Your task to perform on an android device: Clear the shopping cart on walmart.com. Add "energizer triple a" to the cart on walmart.com Image 0: 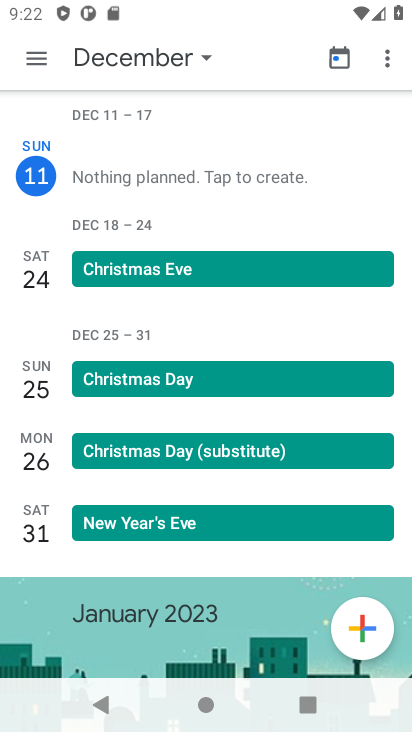
Step 0: press home button
Your task to perform on an android device: Clear the shopping cart on walmart.com. Add "energizer triple a" to the cart on walmart.com Image 1: 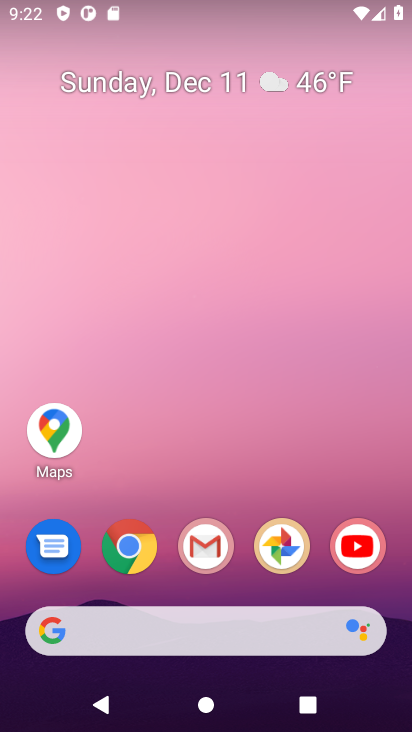
Step 1: click (116, 550)
Your task to perform on an android device: Clear the shopping cart on walmart.com. Add "energizer triple a" to the cart on walmart.com Image 2: 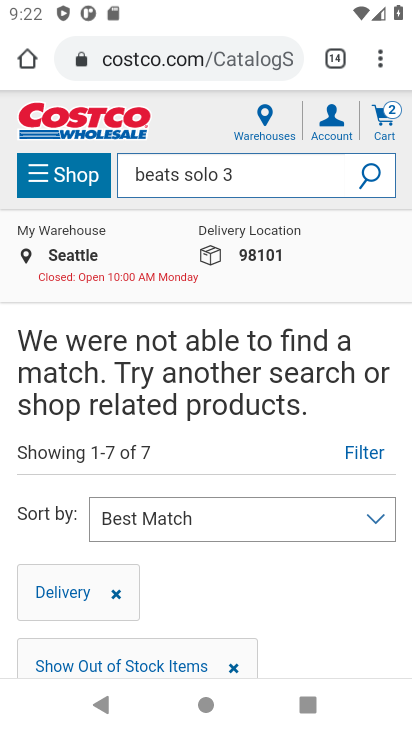
Step 2: click (161, 60)
Your task to perform on an android device: Clear the shopping cart on walmart.com. Add "energizer triple a" to the cart on walmart.com Image 3: 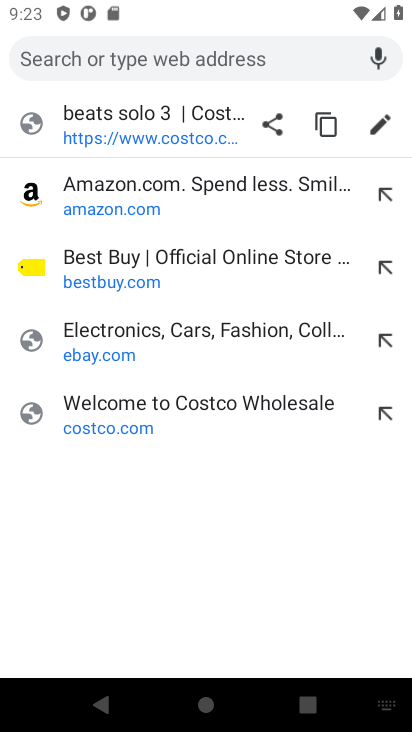
Step 3: click (111, 48)
Your task to perform on an android device: Clear the shopping cart on walmart.com. Add "energizer triple a" to the cart on walmart.com Image 4: 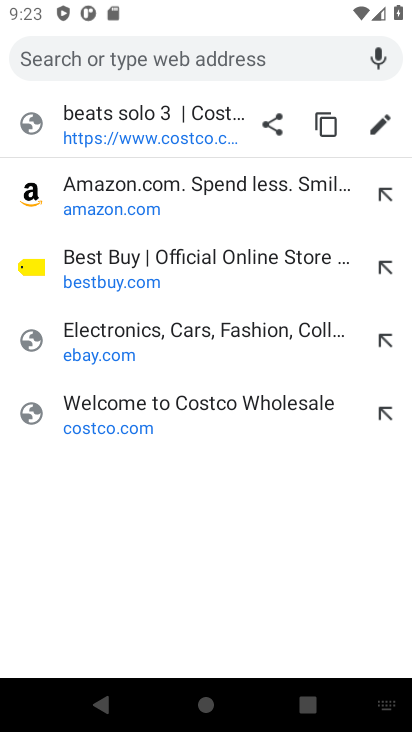
Step 4: type "walmart.com"
Your task to perform on an android device: Clear the shopping cart on walmart.com. Add "energizer triple a" to the cart on walmart.com Image 5: 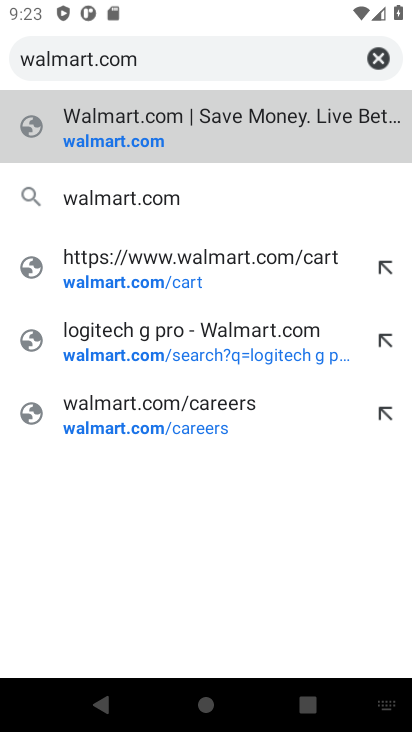
Step 5: click (111, 147)
Your task to perform on an android device: Clear the shopping cart on walmart.com. Add "energizer triple a" to the cart on walmart.com Image 6: 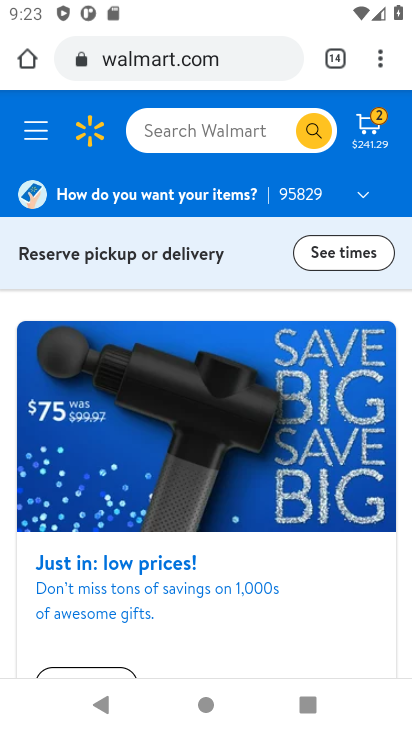
Step 6: click (367, 136)
Your task to perform on an android device: Clear the shopping cart on walmart.com. Add "energizer triple a" to the cart on walmart.com Image 7: 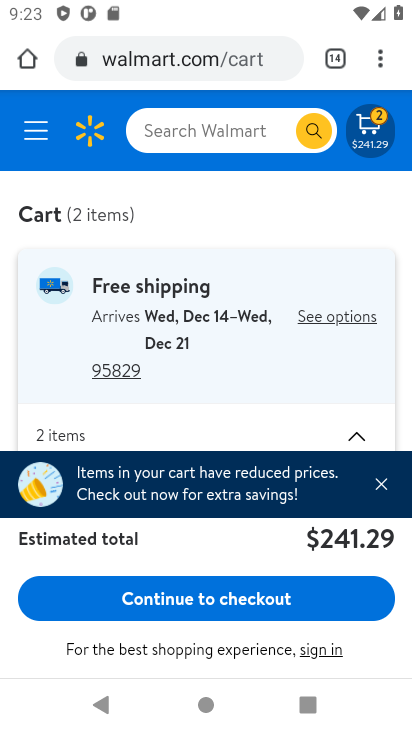
Step 7: drag from (135, 401) to (177, 118)
Your task to perform on an android device: Clear the shopping cart on walmart.com. Add "energizer triple a" to the cart on walmart.com Image 8: 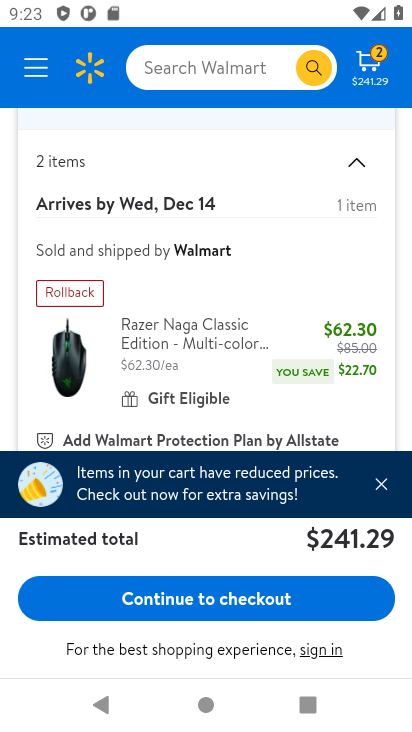
Step 8: drag from (101, 366) to (128, 206)
Your task to perform on an android device: Clear the shopping cart on walmart.com. Add "energizer triple a" to the cart on walmart.com Image 9: 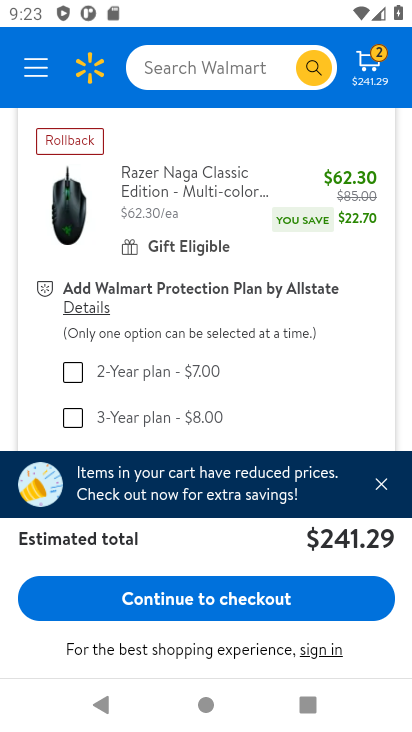
Step 9: drag from (154, 343) to (171, 201)
Your task to perform on an android device: Clear the shopping cart on walmart.com. Add "energizer triple a" to the cart on walmart.com Image 10: 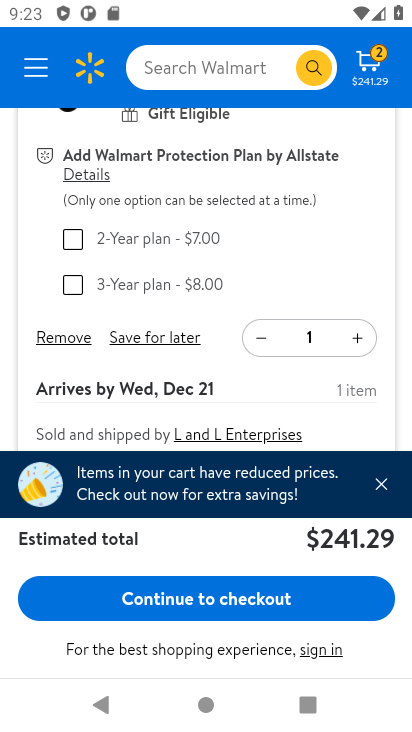
Step 10: click (60, 346)
Your task to perform on an android device: Clear the shopping cart on walmart.com. Add "energizer triple a" to the cart on walmart.com Image 11: 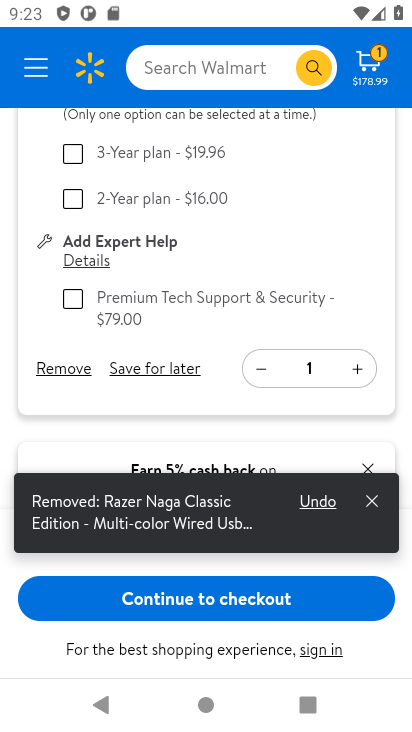
Step 11: click (61, 375)
Your task to perform on an android device: Clear the shopping cart on walmart.com. Add "energizer triple a" to the cart on walmart.com Image 12: 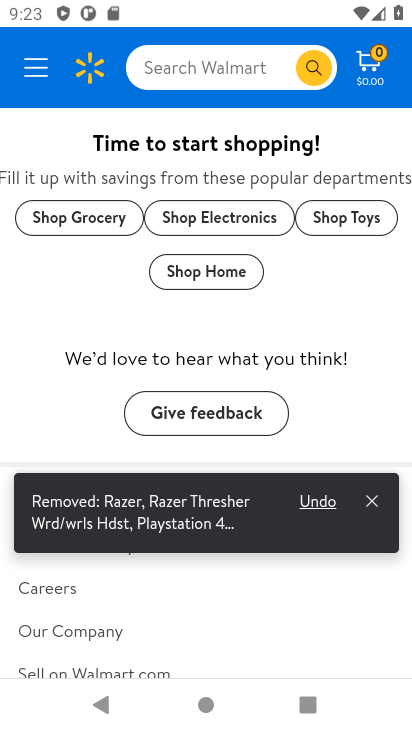
Step 12: drag from (101, 305) to (97, 427)
Your task to perform on an android device: Clear the shopping cart on walmart.com. Add "energizer triple a" to the cart on walmart.com Image 13: 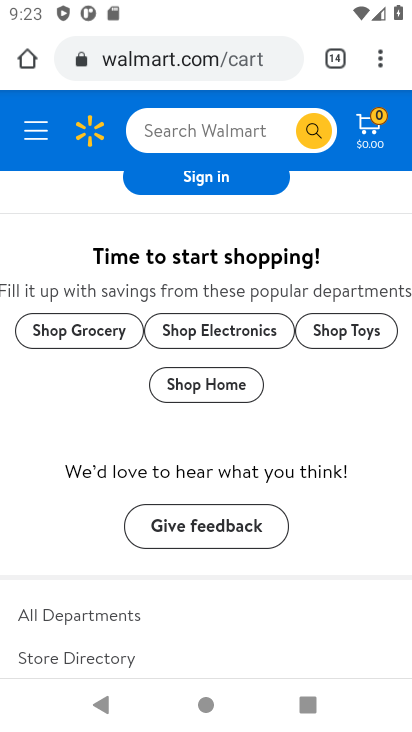
Step 13: click (166, 133)
Your task to perform on an android device: Clear the shopping cart on walmart.com. Add "energizer triple a" to the cart on walmart.com Image 14: 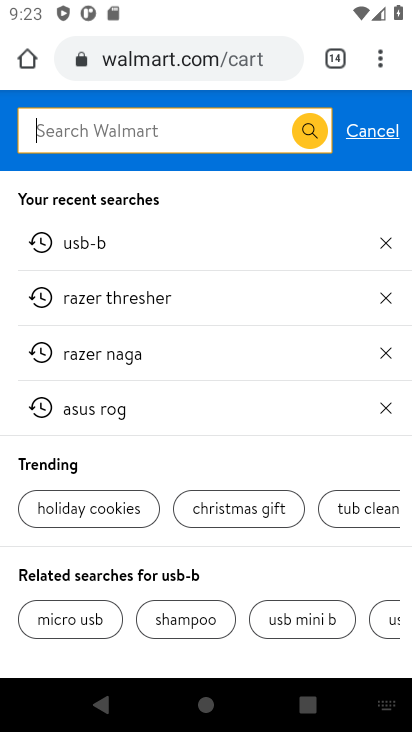
Step 14: type "energizer triple a"
Your task to perform on an android device: Clear the shopping cart on walmart.com. Add "energizer triple a" to the cart on walmart.com Image 15: 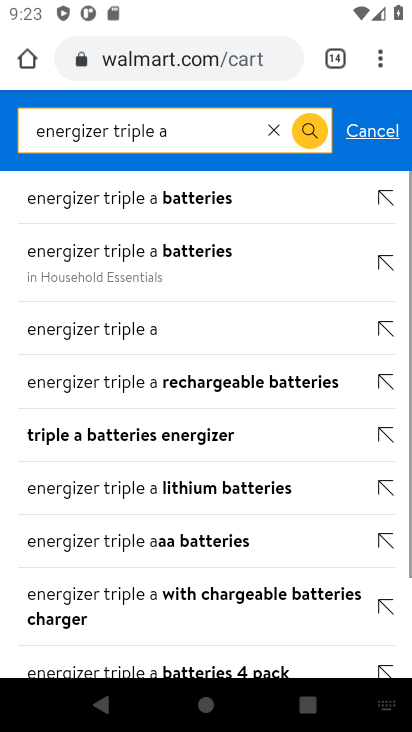
Step 15: click (65, 205)
Your task to perform on an android device: Clear the shopping cart on walmart.com. Add "energizer triple a" to the cart on walmart.com Image 16: 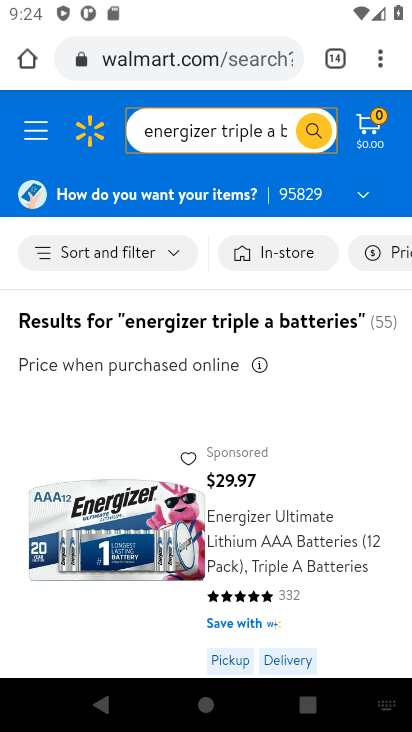
Step 16: drag from (91, 416) to (99, 257)
Your task to perform on an android device: Clear the shopping cart on walmart.com. Add "energizer triple a" to the cart on walmart.com Image 17: 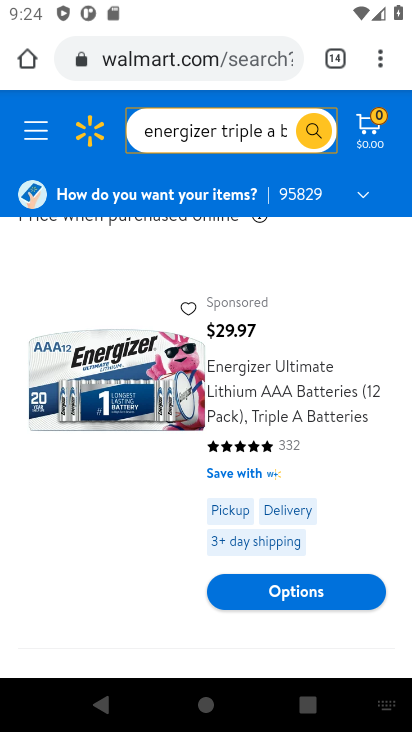
Step 17: click (298, 424)
Your task to perform on an android device: Clear the shopping cart on walmart.com. Add "energizer triple a" to the cart on walmart.com Image 18: 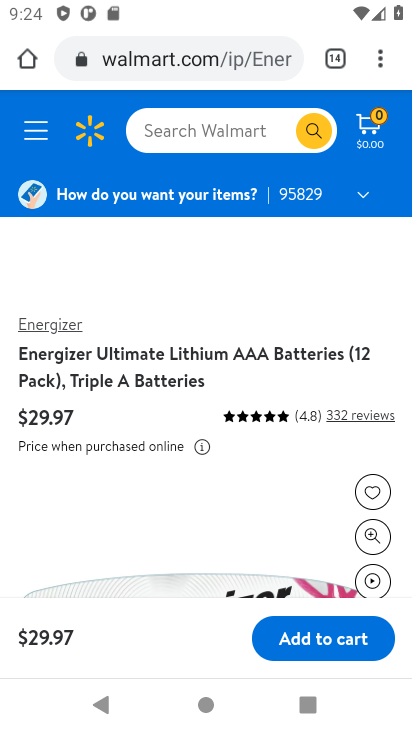
Step 18: click (324, 648)
Your task to perform on an android device: Clear the shopping cart on walmart.com. Add "energizer triple a" to the cart on walmart.com Image 19: 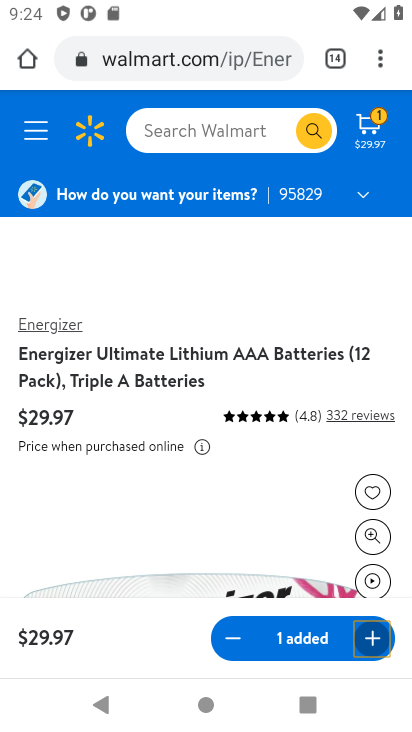
Step 19: task complete